Your task to perform on an android device: delete the emails in spam in the gmail app Image 0: 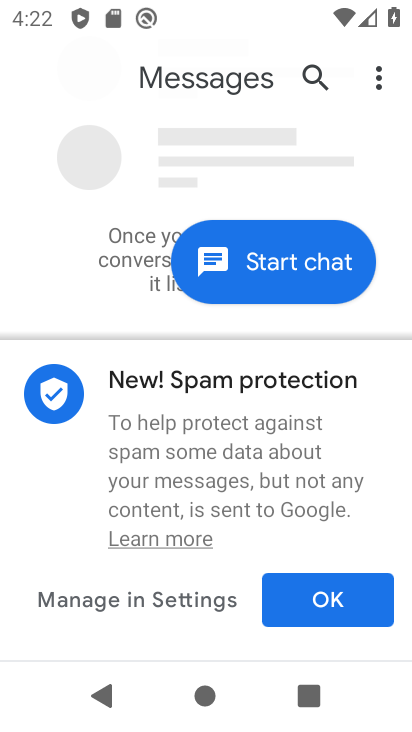
Step 0: press home button
Your task to perform on an android device: delete the emails in spam in the gmail app Image 1: 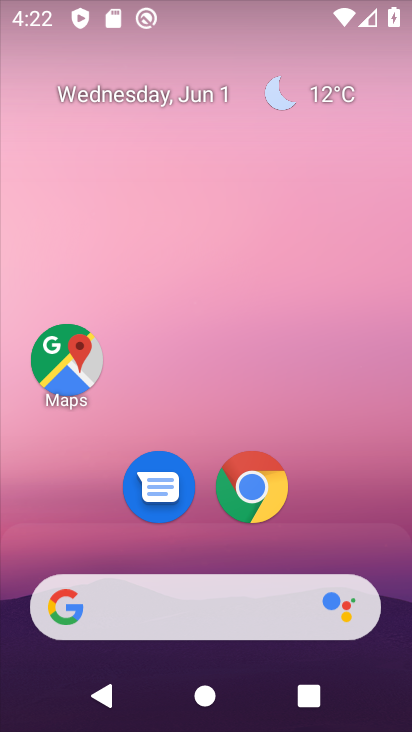
Step 1: drag from (156, 560) to (226, 43)
Your task to perform on an android device: delete the emails in spam in the gmail app Image 2: 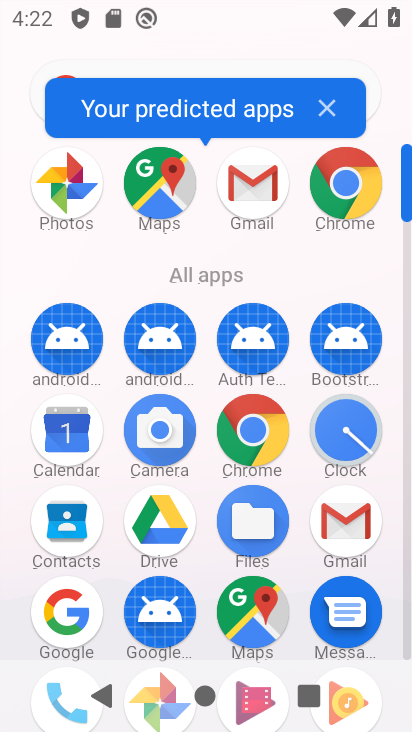
Step 2: drag from (159, 494) to (226, 309)
Your task to perform on an android device: delete the emails in spam in the gmail app Image 3: 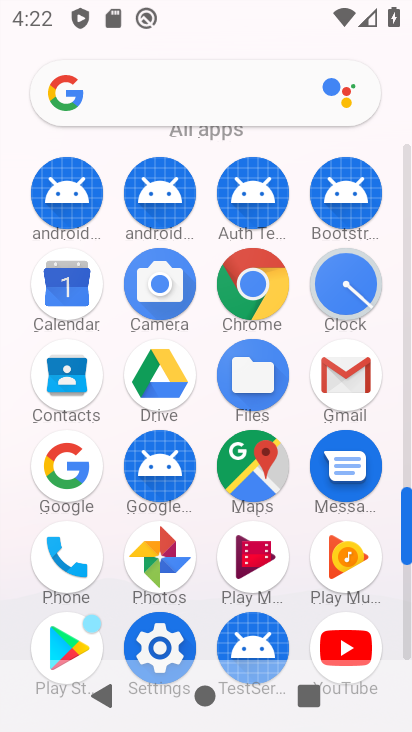
Step 3: click (341, 387)
Your task to perform on an android device: delete the emails in spam in the gmail app Image 4: 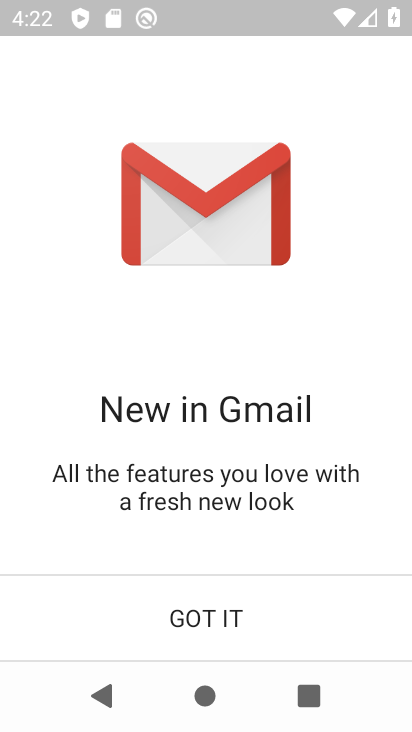
Step 4: click (214, 629)
Your task to perform on an android device: delete the emails in spam in the gmail app Image 5: 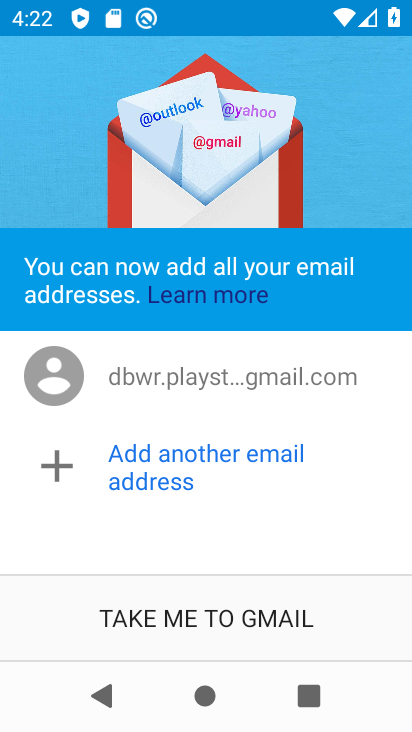
Step 5: click (215, 627)
Your task to perform on an android device: delete the emails in spam in the gmail app Image 6: 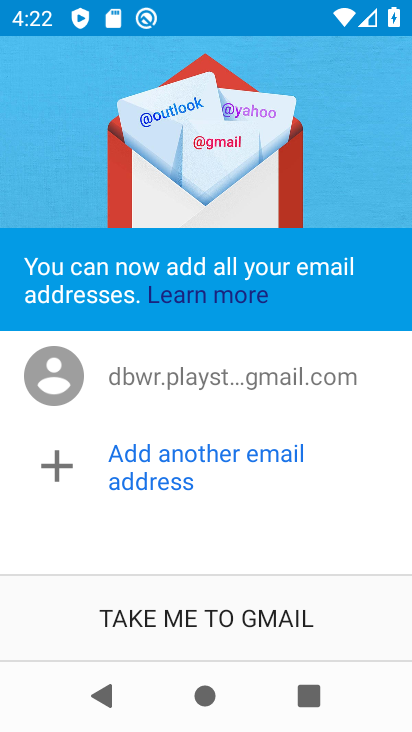
Step 6: click (215, 627)
Your task to perform on an android device: delete the emails in spam in the gmail app Image 7: 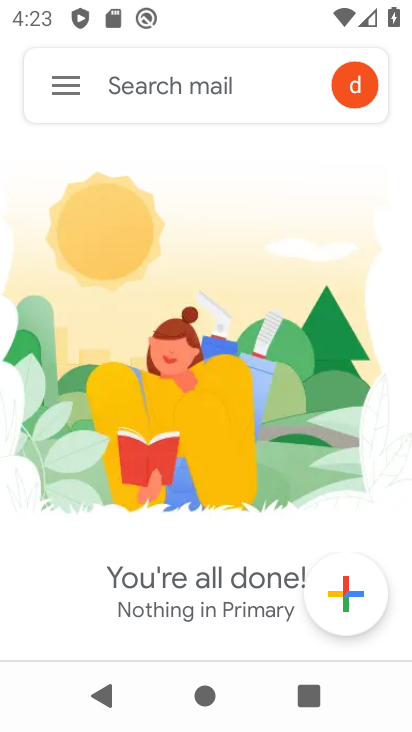
Step 7: click (71, 114)
Your task to perform on an android device: delete the emails in spam in the gmail app Image 8: 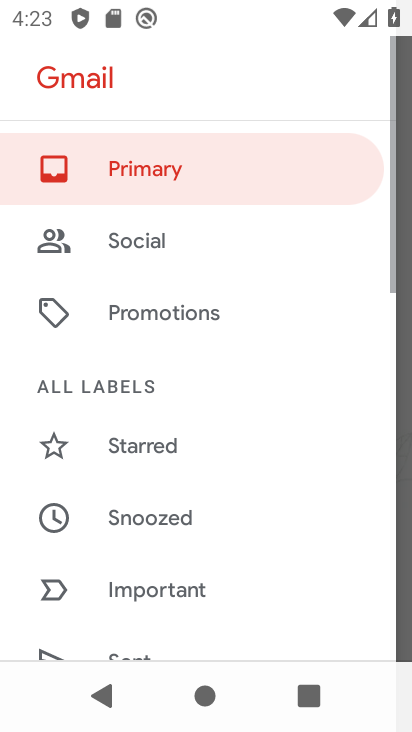
Step 8: drag from (126, 511) to (254, 185)
Your task to perform on an android device: delete the emails in spam in the gmail app Image 9: 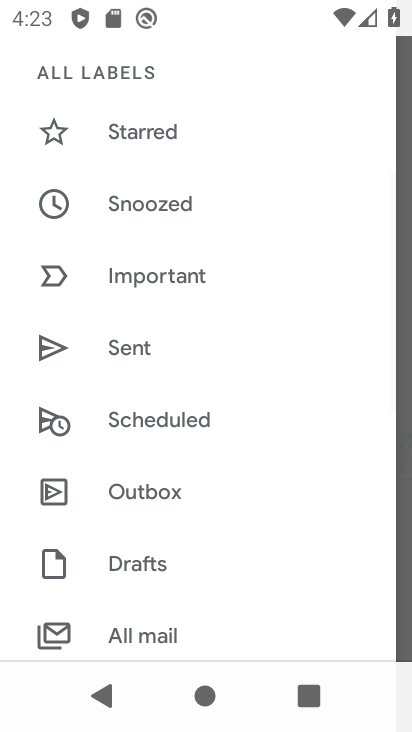
Step 9: drag from (160, 562) to (226, 289)
Your task to perform on an android device: delete the emails in spam in the gmail app Image 10: 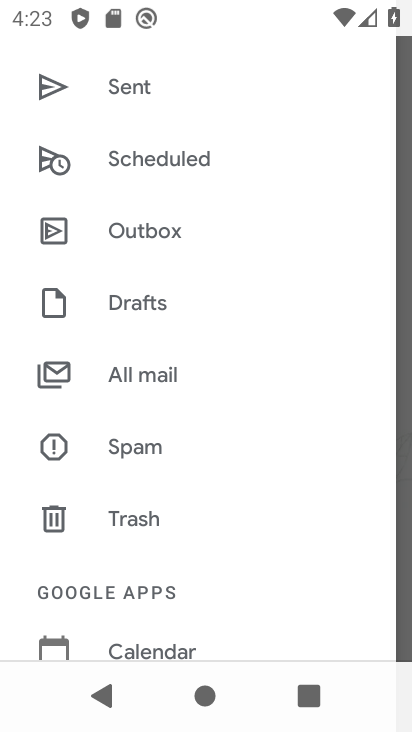
Step 10: click (167, 459)
Your task to perform on an android device: delete the emails in spam in the gmail app Image 11: 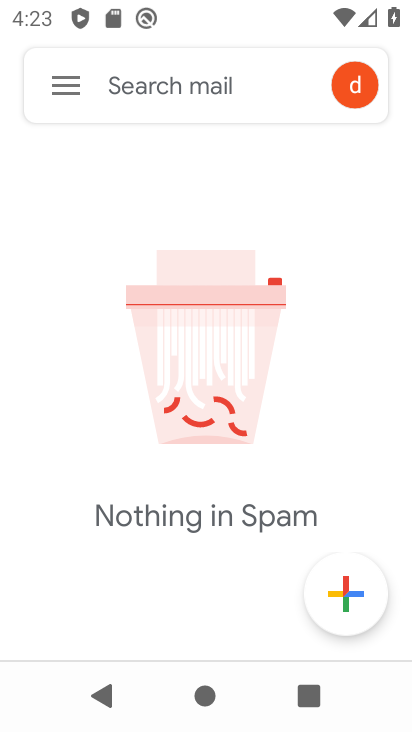
Step 11: task complete